Your task to perform on an android device: Go to Yahoo.com Image 0: 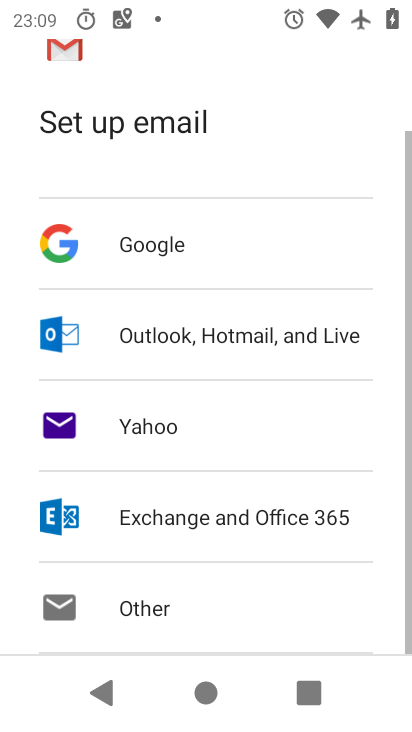
Step 0: drag from (216, 523) to (251, 261)
Your task to perform on an android device: Go to Yahoo.com Image 1: 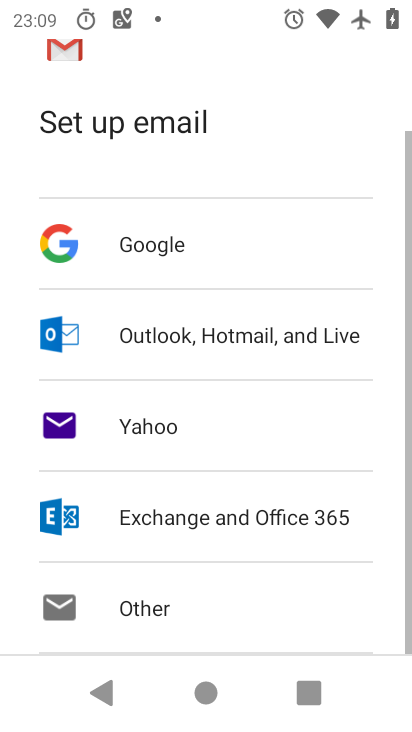
Step 1: press home button
Your task to perform on an android device: Go to Yahoo.com Image 2: 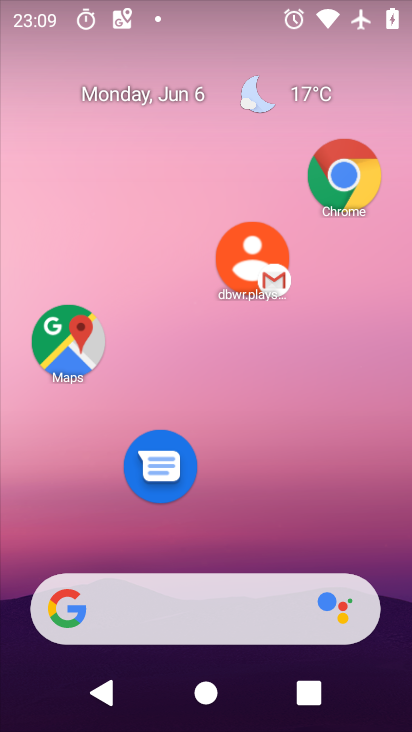
Step 2: drag from (236, 469) to (238, 133)
Your task to perform on an android device: Go to Yahoo.com Image 3: 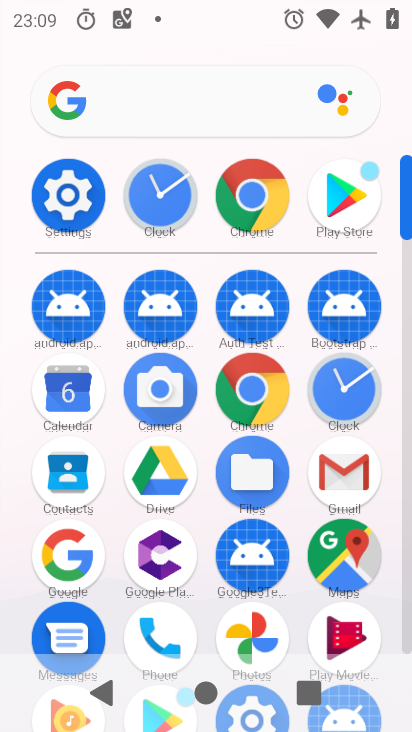
Step 3: click (187, 116)
Your task to perform on an android device: Go to Yahoo.com Image 4: 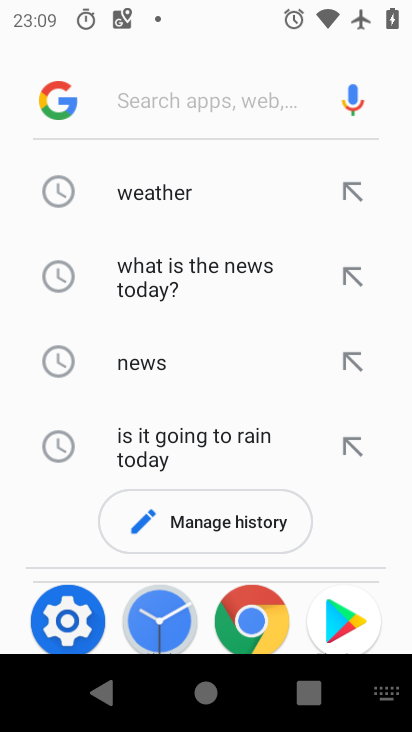
Step 4: type "Yahoo.com"
Your task to perform on an android device: Go to Yahoo.com Image 5: 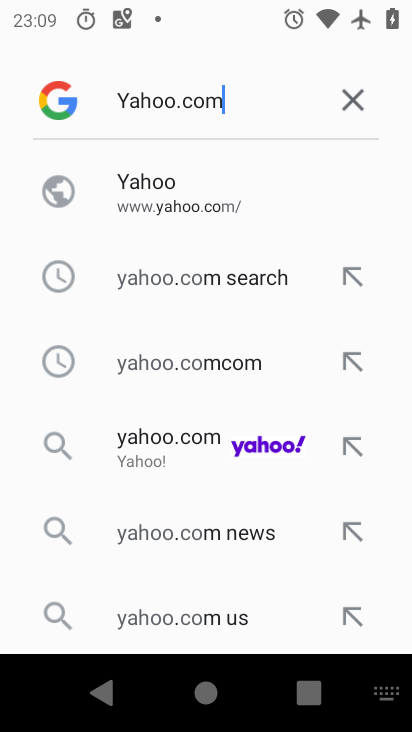
Step 5: type ""
Your task to perform on an android device: Go to Yahoo.com Image 6: 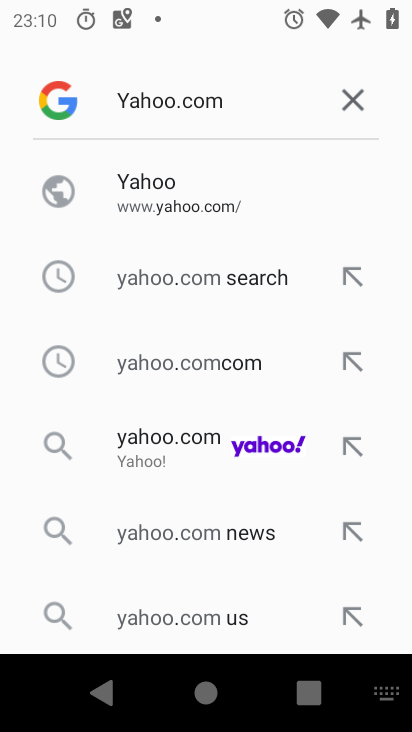
Step 6: click (189, 458)
Your task to perform on an android device: Go to Yahoo.com Image 7: 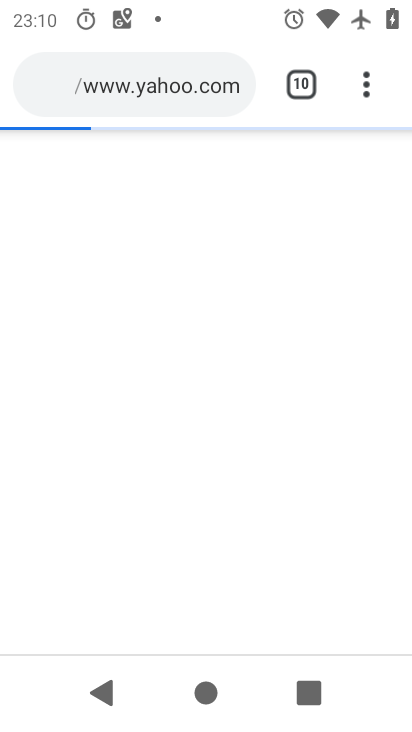
Step 7: task complete